Your task to perform on an android device: change the clock display to show seconds Image 0: 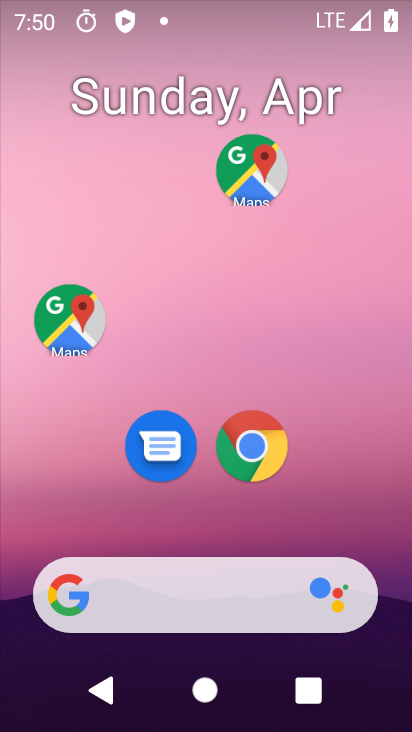
Step 0: drag from (196, 542) to (387, 81)
Your task to perform on an android device: change the clock display to show seconds Image 1: 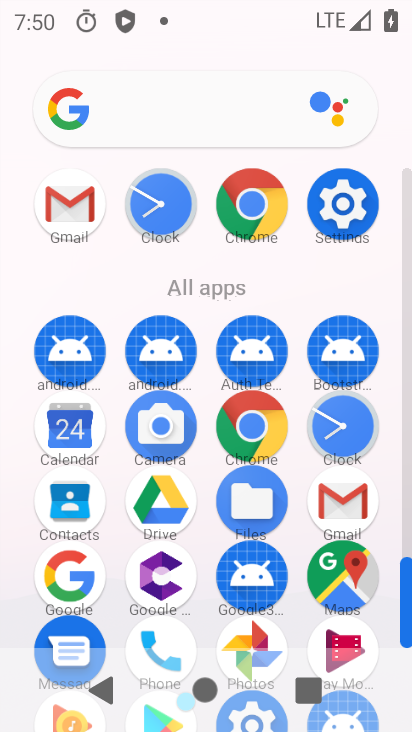
Step 1: click (153, 221)
Your task to perform on an android device: change the clock display to show seconds Image 2: 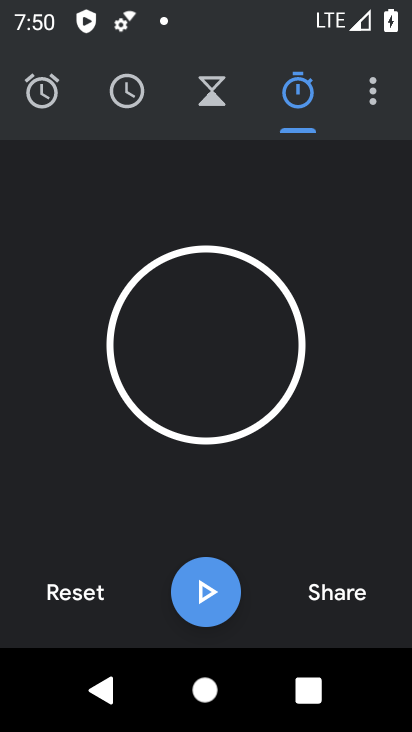
Step 2: click (371, 83)
Your task to perform on an android device: change the clock display to show seconds Image 3: 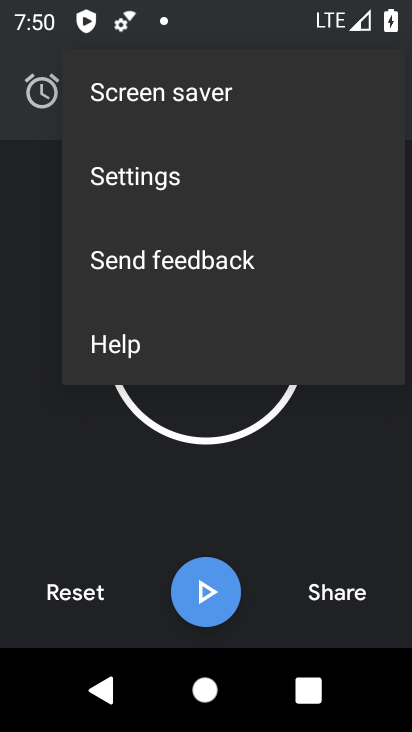
Step 3: click (185, 162)
Your task to perform on an android device: change the clock display to show seconds Image 4: 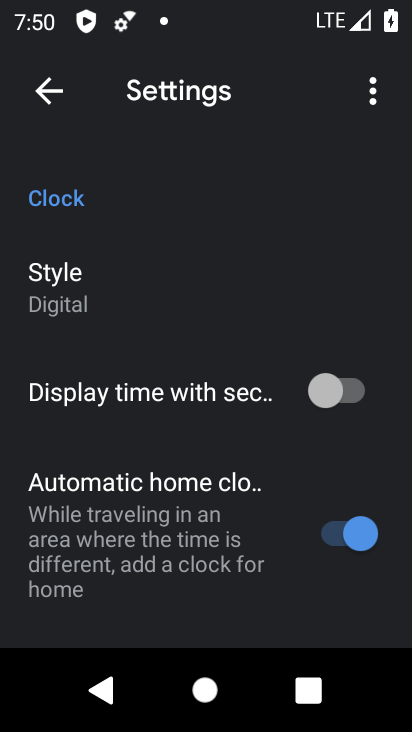
Step 4: click (338, 386)
Your task to perform on an android device: change the clock display to show seconds Image 5: 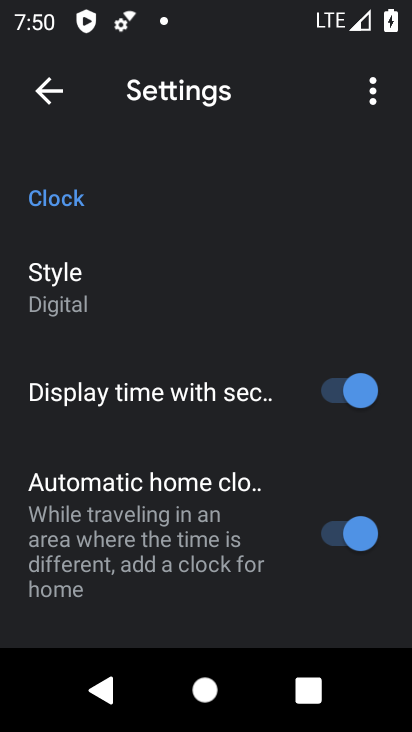
Step 5: task complete